Your task to perform on an android device: install app "Upside-Cash back on gas & food" Image 0: 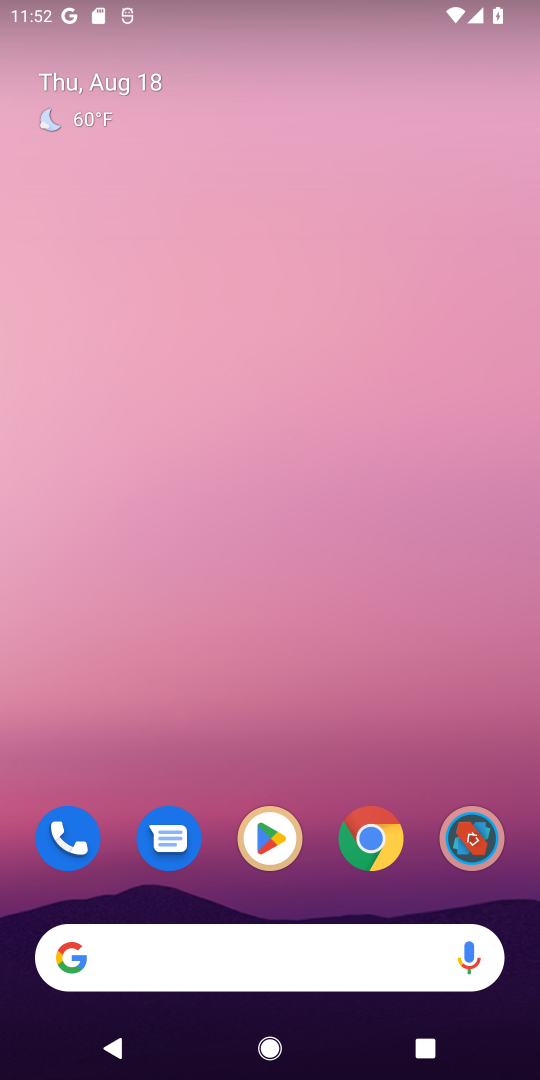
Step 0: click (269, 825)
Your task to perform on an android device: install app "Upside-Cash back on gas & food" Image 1: 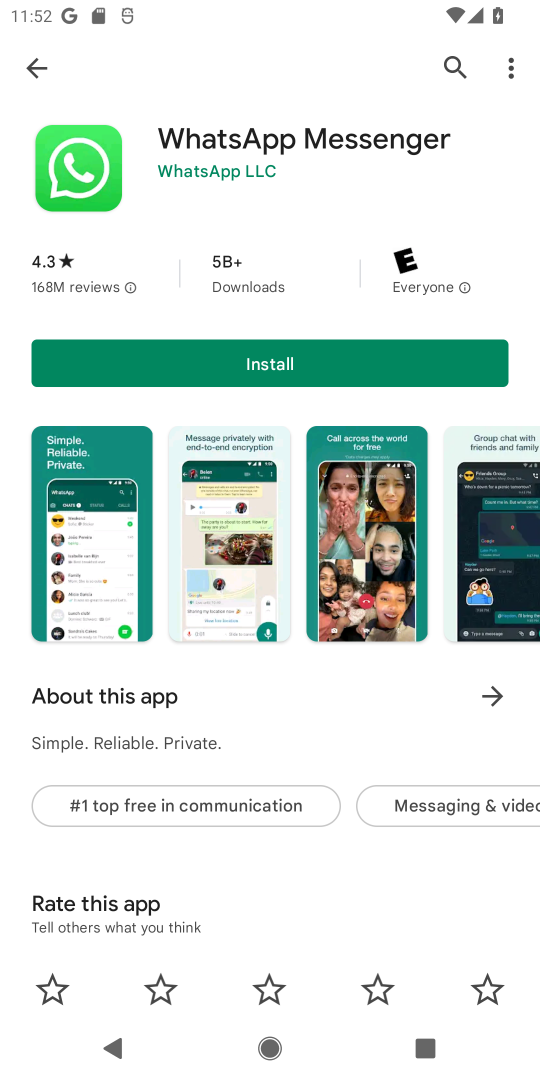
Step 1: task complete